Your task to perform on an android device: install app "Grab" Image 0: 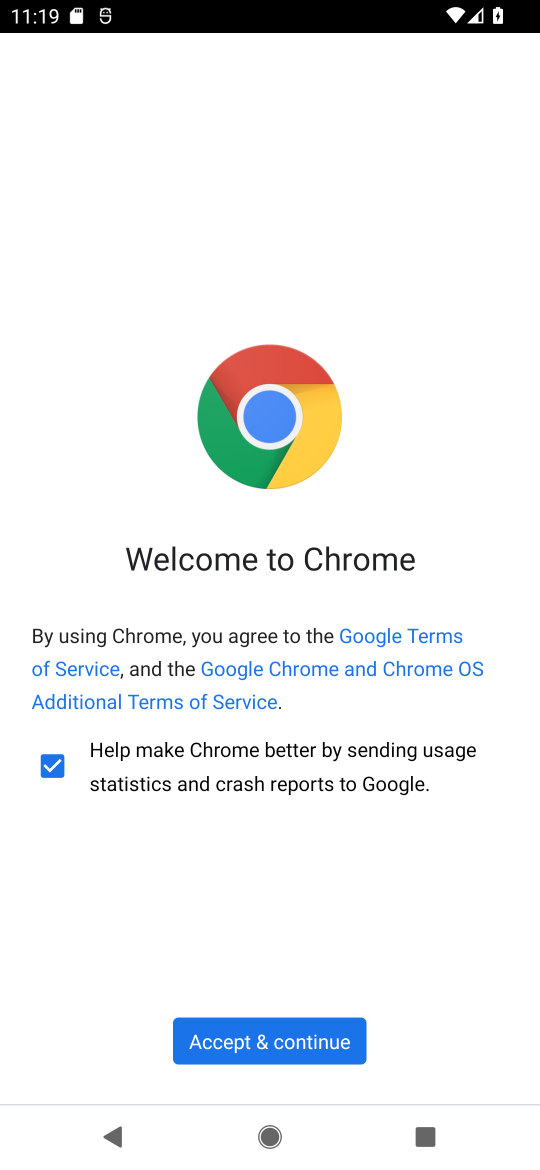
Step 0: press home button
Your task to perform on an android device: install app "Grab" Image 1: 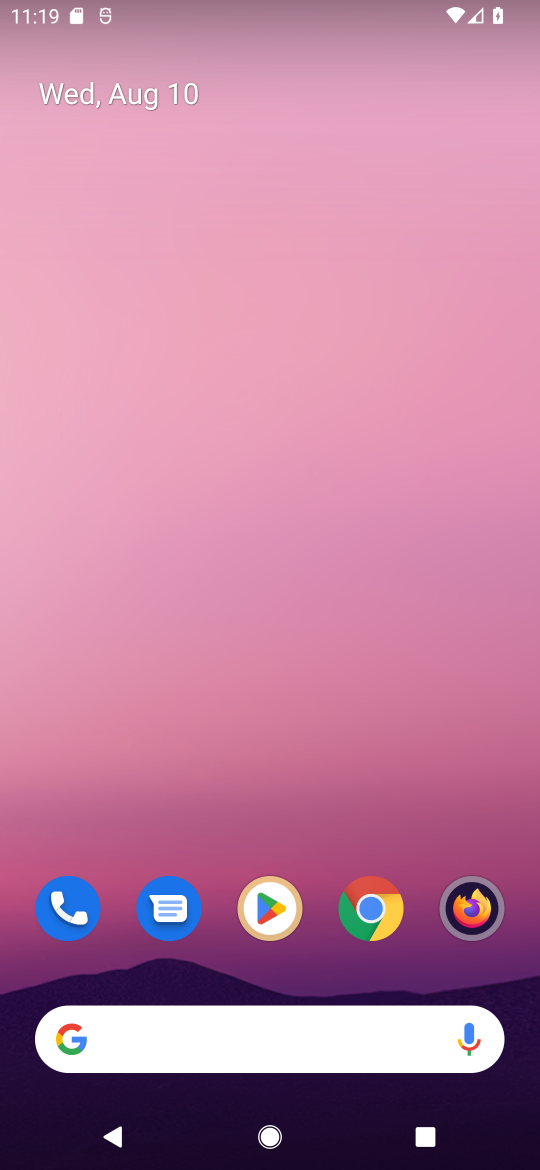
Step 1: click (274, 918)
Your task to perform on an android device: install app "Grab" Image 2: 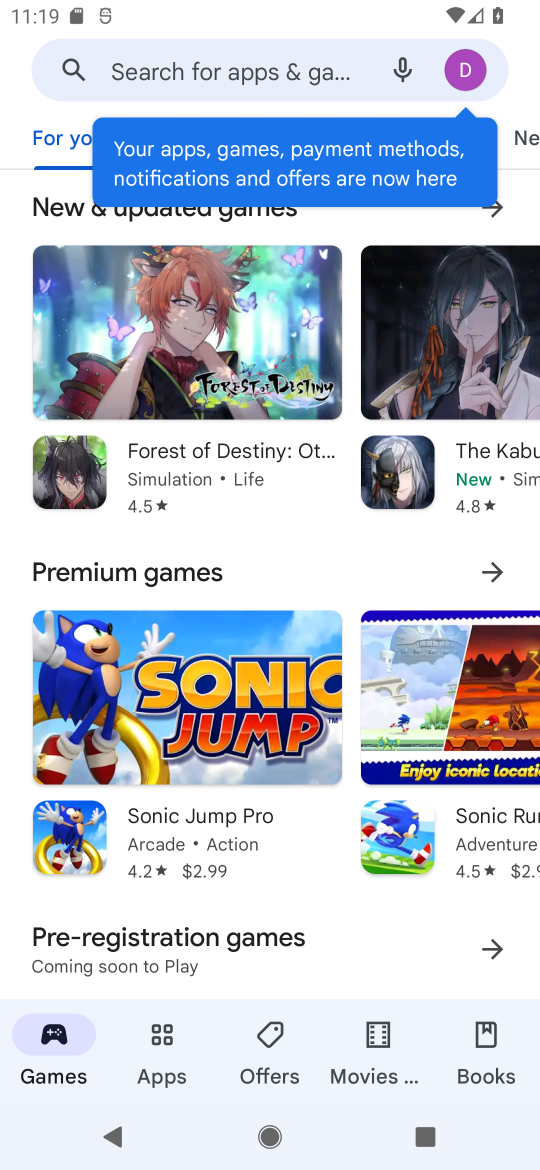
Step 2: click (329, 65)
Your task to perform on an android device: install app "Grab" Image 3: 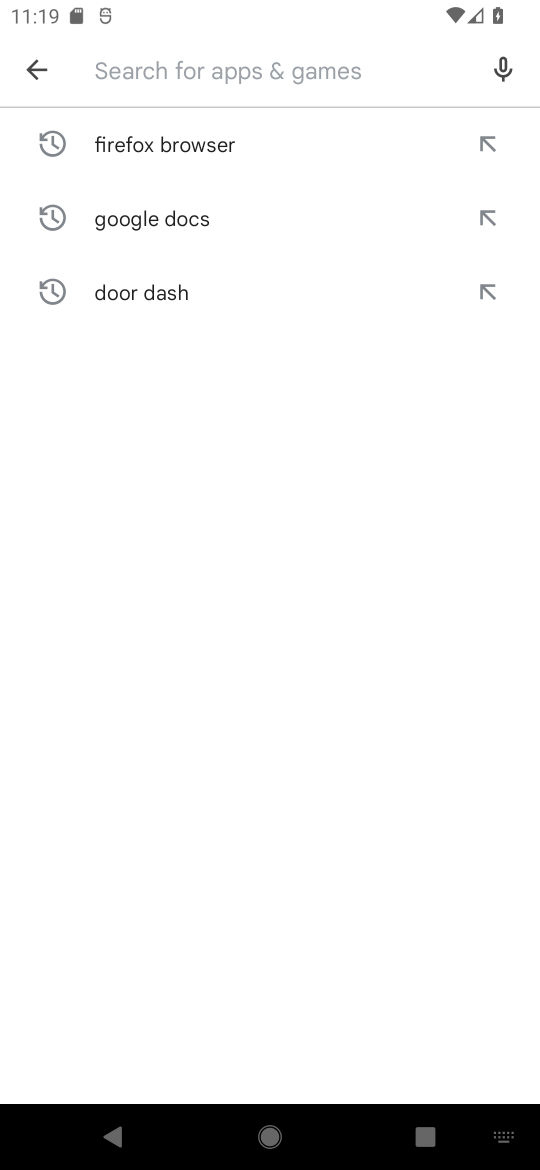
Step 3: type "grab"
Your task to perform on an android device: install app "Grab" Image 4: 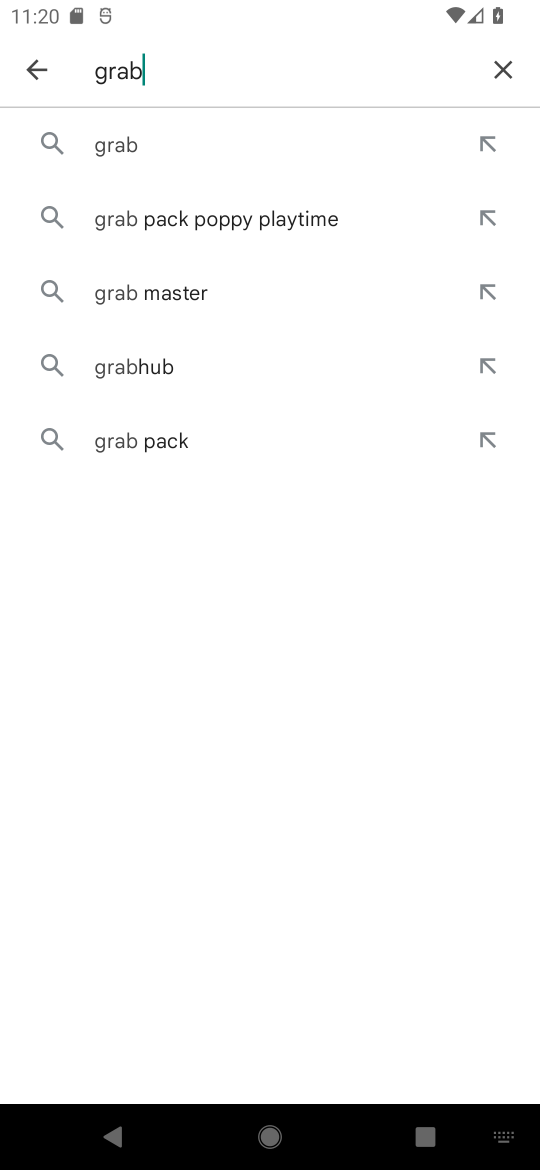
Step 4: click (174, 131)
Your task to perform on an android device: install app "Grab" Image 5: 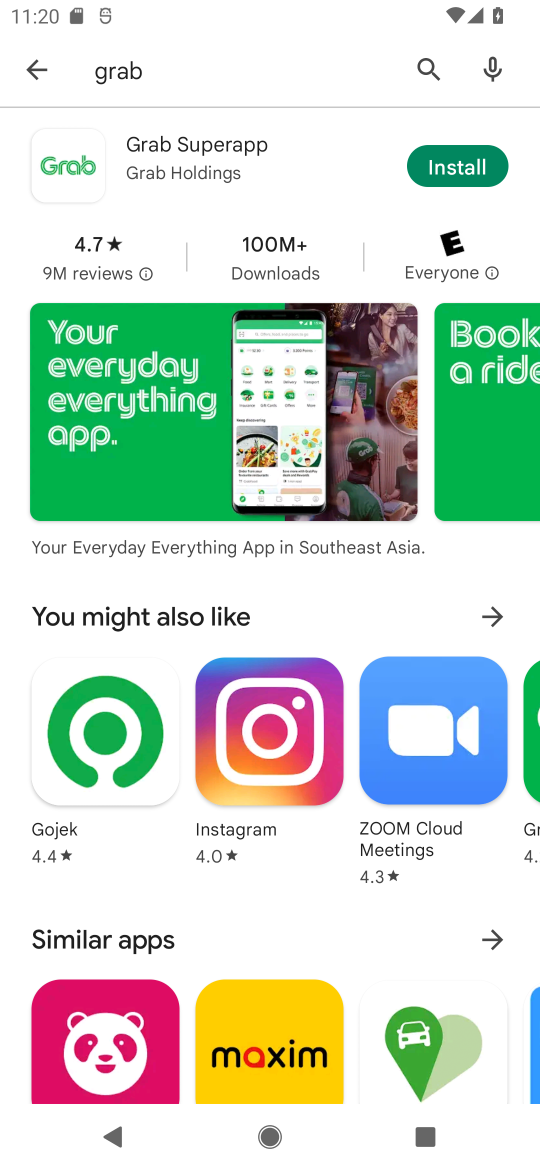
Step 5: click (491, 164)
Your task to perform on an android device: install app "Grab" Image 6: 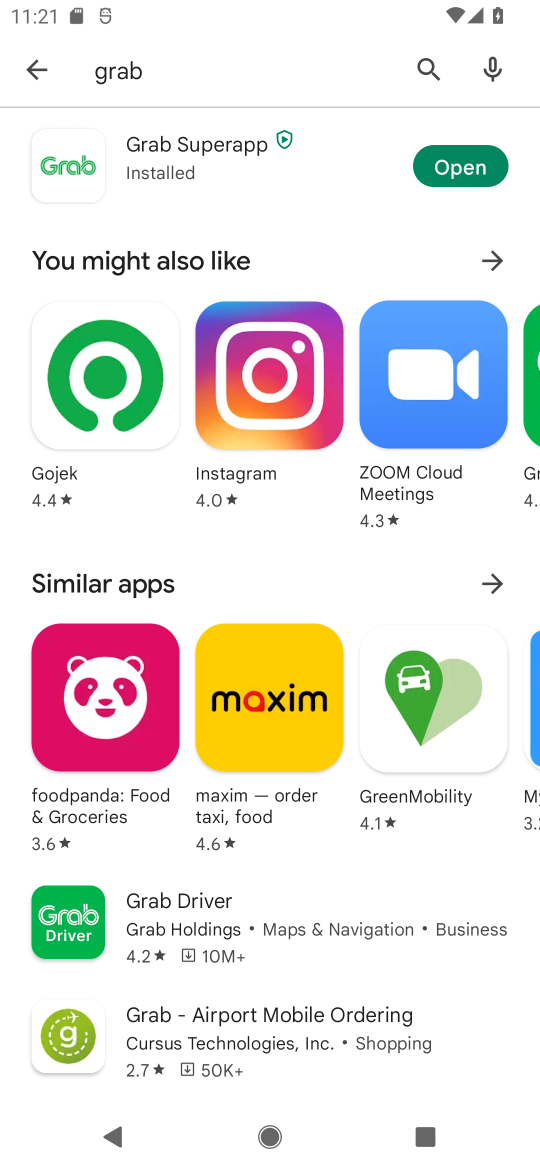
Step 6: task complete